Your task to perform on an android device: What's the weather going to be this weekend? Image 0: 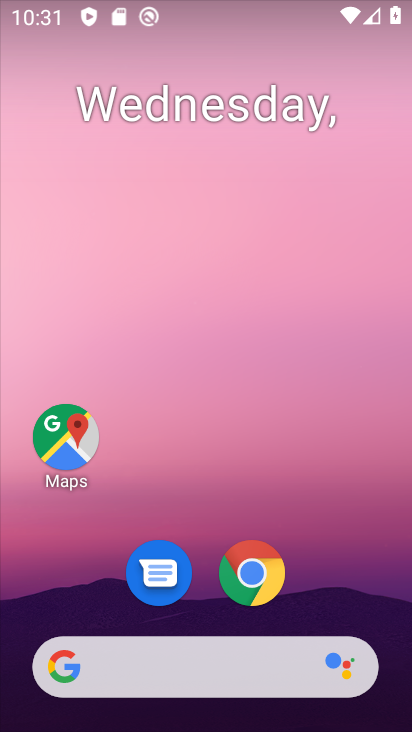
Step 0: drag from (389, 633) to (383, 72)
Your task to perform on an android device: What's the weather going to be this weekend? Image 1: 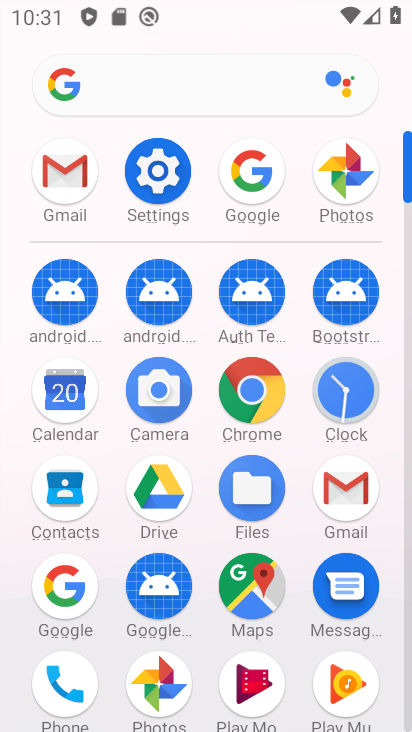
Step 1: click (55, 593)
Your task to perform on an android device: What's the weather going to be this weekend? Image 2: 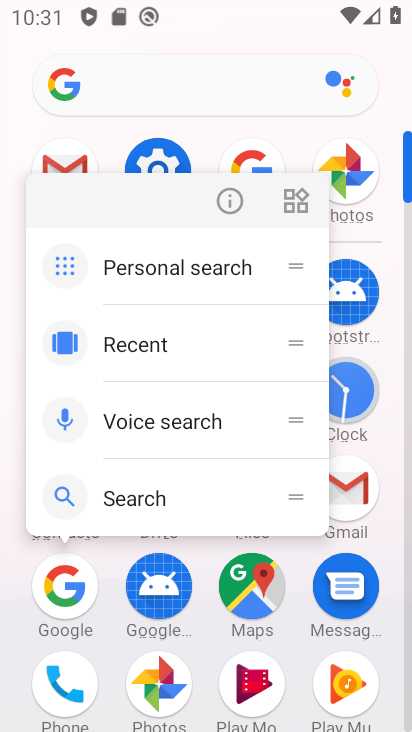
Step 2: click (64, 584)
Your task to perform on an android device: What's the weather going to be this weekend? Image 3: 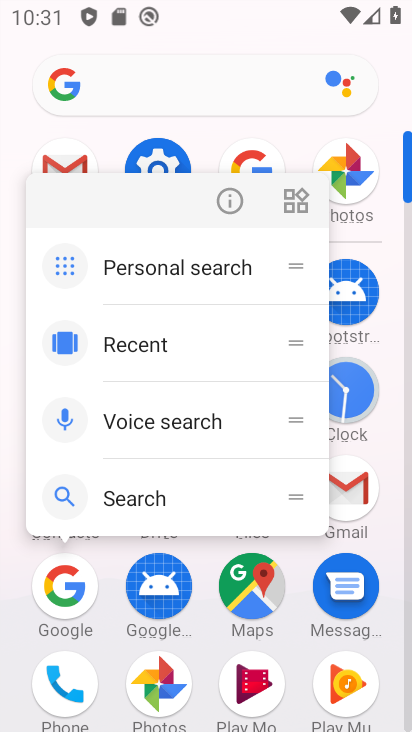
Step 3: click (64, 584)
Your task to perform on an android device: What's the weather going to be this weekend? Image 4: 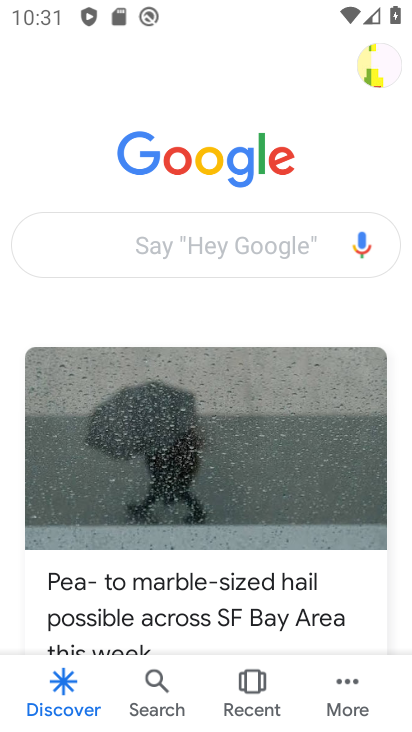
Step 4: task complete